Your task to perform on an android device: check data usage Image 0: 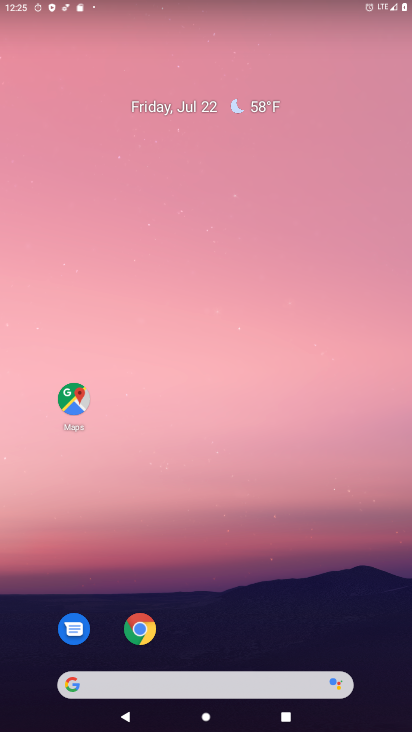
Step 0: drag from (361, 623) to (392, 158)
Your task to perform on an android device: check data usage Image 1: 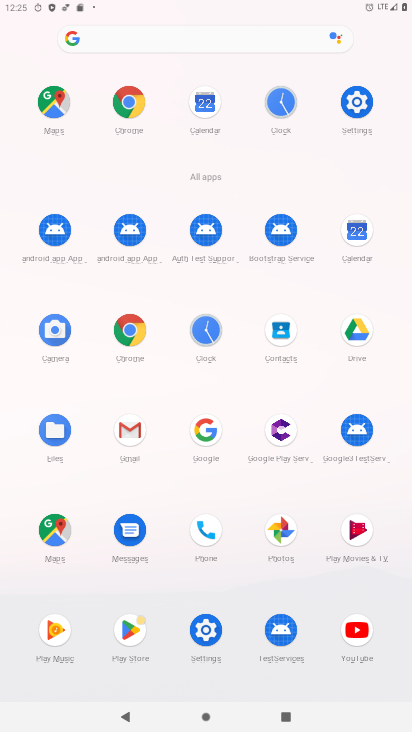
Step 1: click (359, 99)
Your task to perform on an android device: check data usage Image 2: 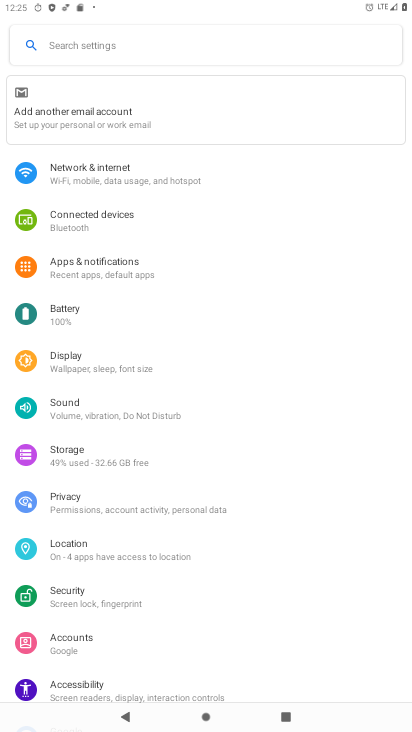
Step 2: drag from (373, 233) to (363, 390)
Your task to perform on an android device: check data usage Image 3: 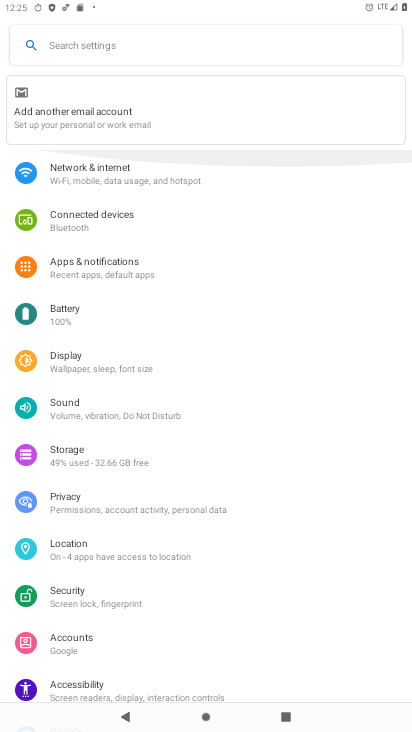
Step 3: drag from (346, 494) to (353, 395)
Your task to perform on an android device: check data usage Image 4: 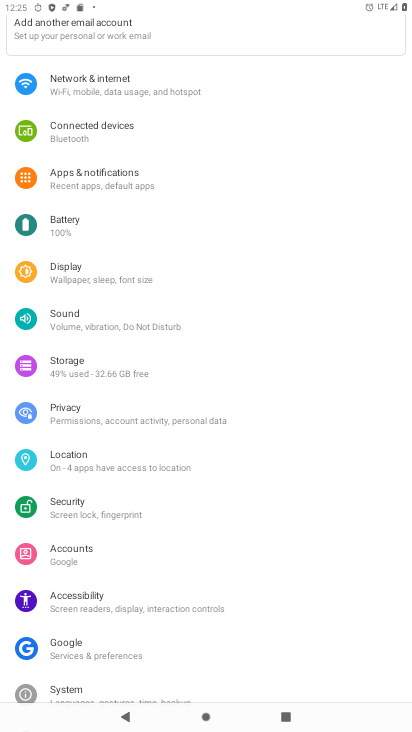
Step 4: drag from (341, 479) to (334, 348)
Your task to perform on an android device: check data usage Image 5: 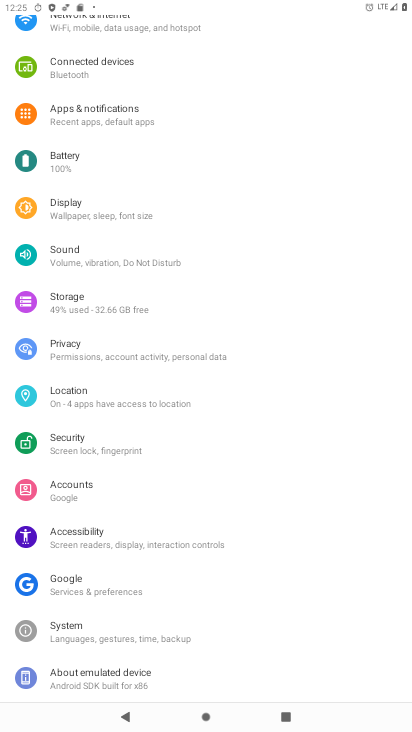
Step 5: drag from (347, 270) to (347, 339)
Your task to perform on an android device: check data usage Image 6: 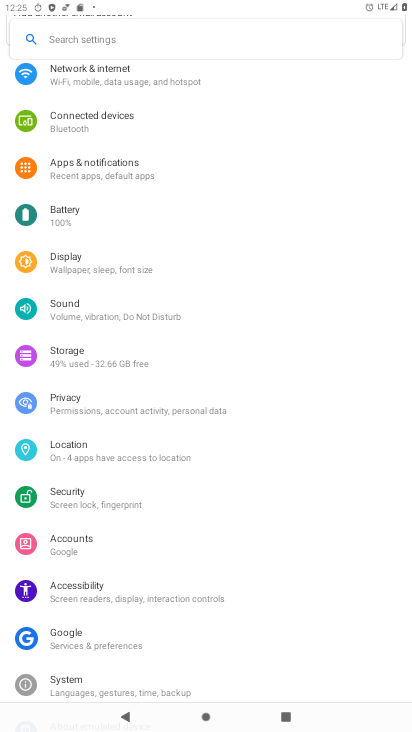
Step 6: drag from (336, 273) to (333, 341)
Your task to perform on an android device: check data usage Image 7: 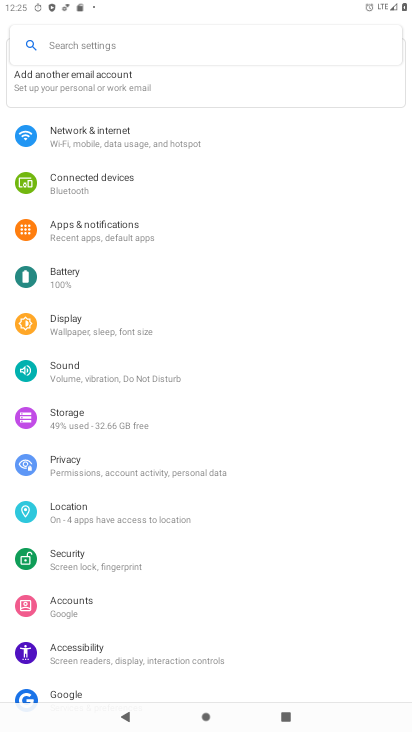
Step 7: drag from (321, 247) to (323, 328)
Your task to perform on an android device: check data usage Image 8: 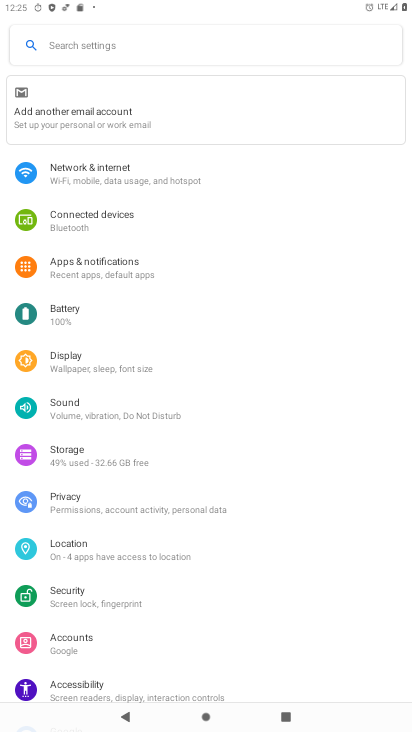
Step 8: click (206, 173)
Your task to perform on an android device: check data usage Image 9: 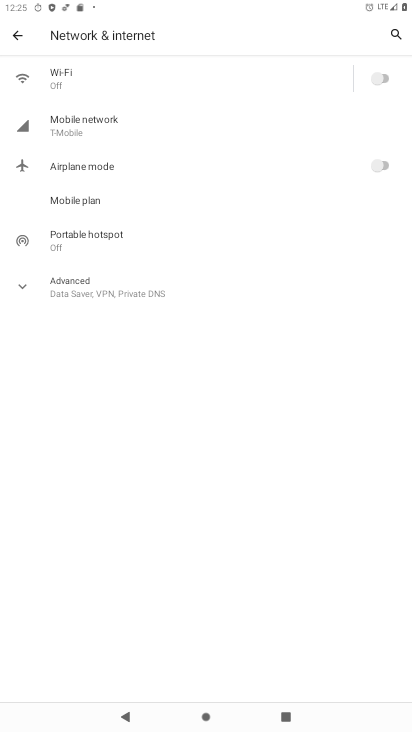
Step 9: click (162, 133)
Your task to perform on an android device: check data usage Image 10: 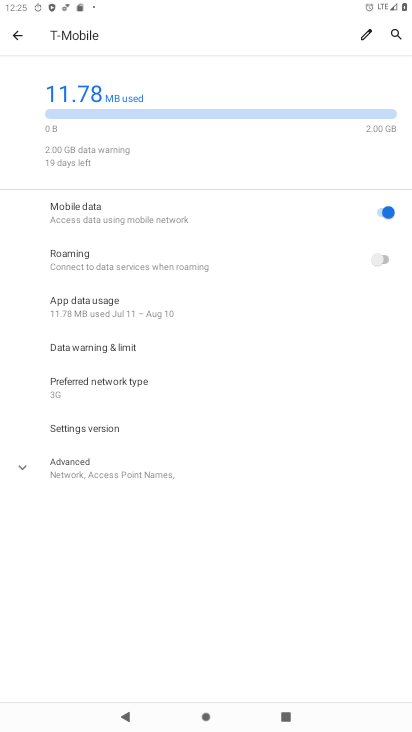
Step 10: click (170, 305)
Your task to perform on an android device: check data usage Image 11: 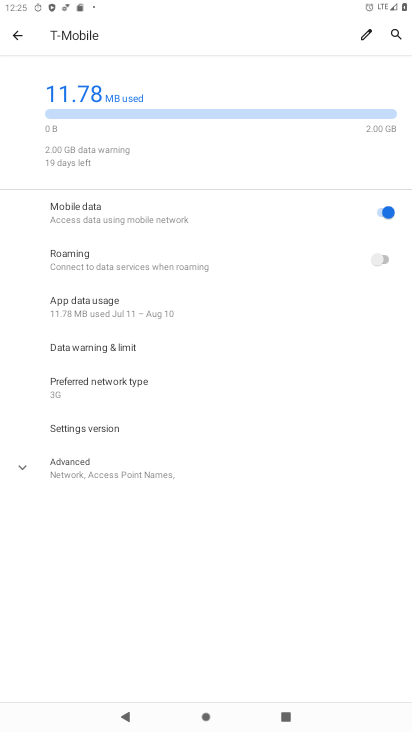
Step 11: click (170, 305)
Your task to perform on an android device: check data usage Image 12: 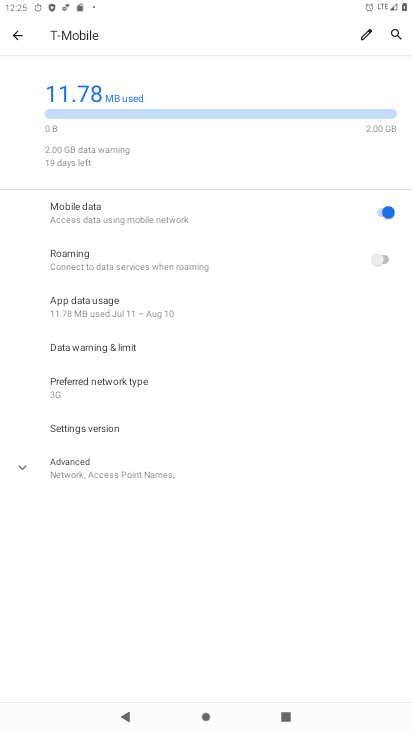
Step 12: click (170, 305)
Your task to perform on an android device: check data usage Image 13: 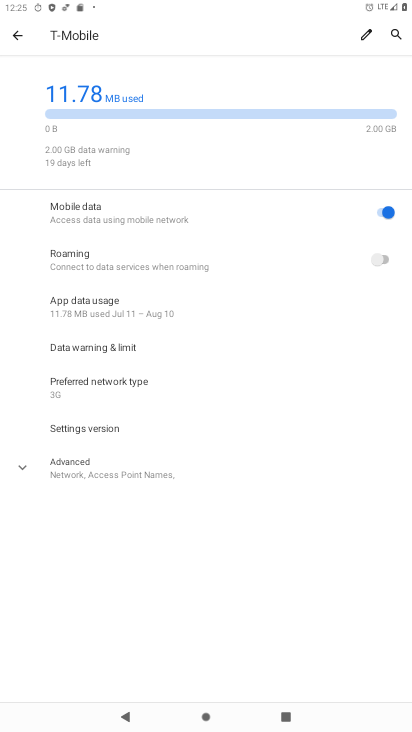
Step 13: task complete